Your task to perform on an android device: Go to network settings Image 0: 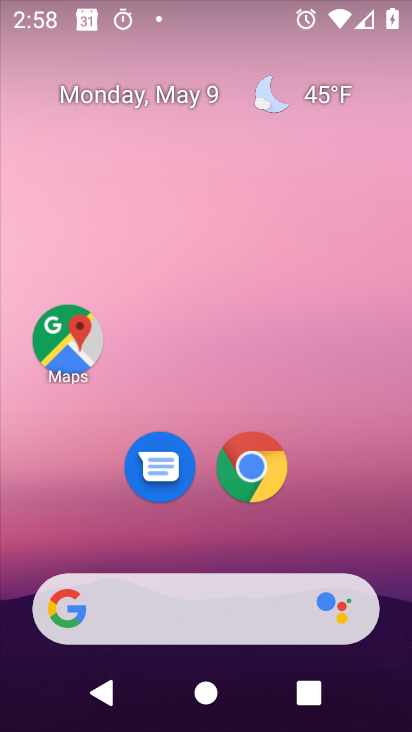
Step 0: drag from (354, 506) to (321, 21)
Your task to perform on an android device: Go to network settings Image 1: 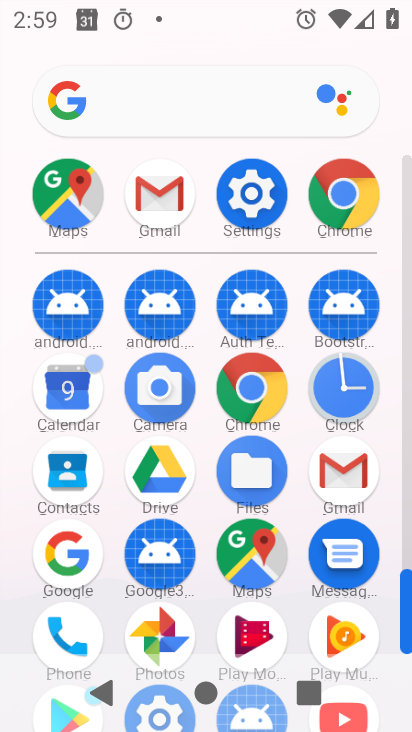
Step 1: click (249, 172)
Your task to perform on an android device: Go to network settings Image 2: 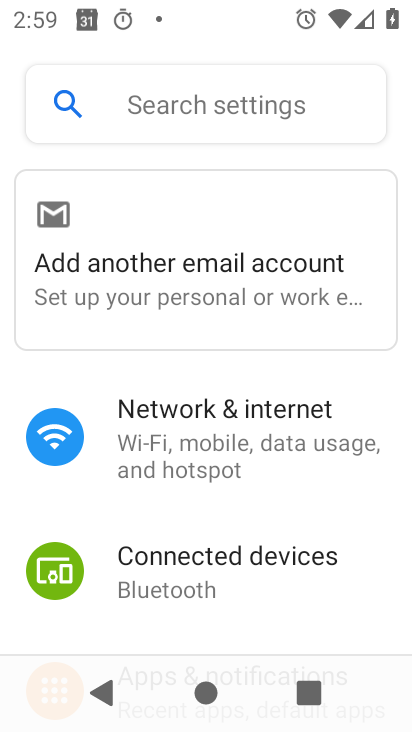
Step 2: click (215, 436)
Your task to perform on an android device: Go to network settings Image 3: 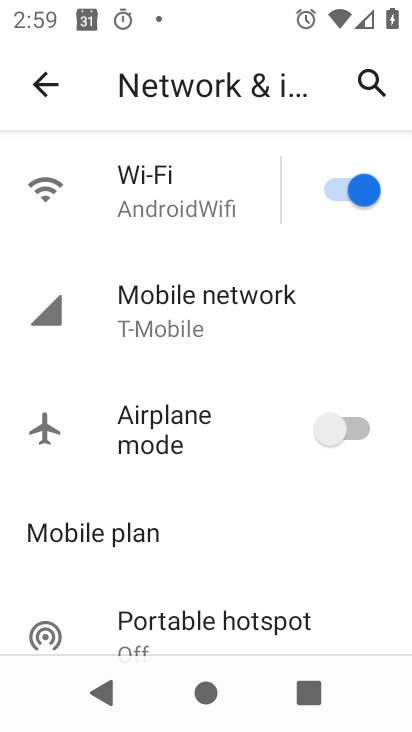
Step 3: click (177, 208)
Your task to perform on an android device: Go to network settings Image 4: 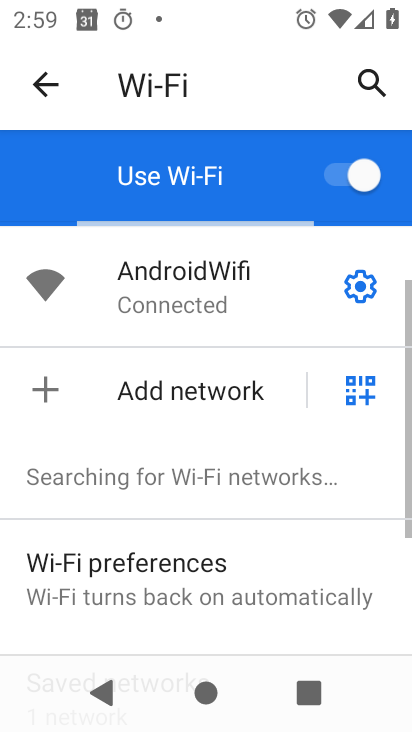
Step 4: click (359, 287)
Your task to perform on an android device: Go to network settings Image 5: 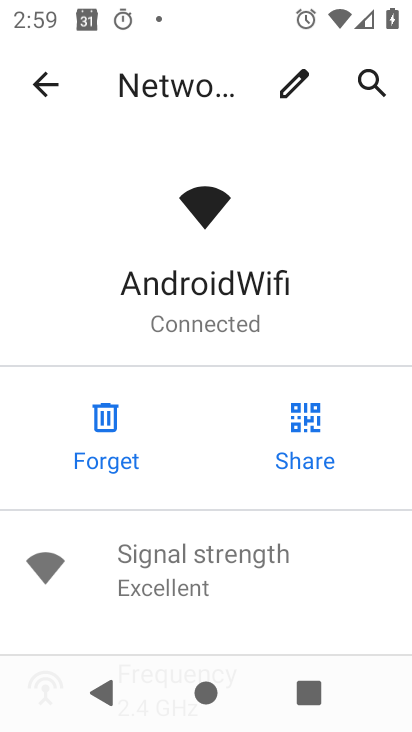
Step 5: task complete